Your task to perform on an android device: check google app version Image 0: 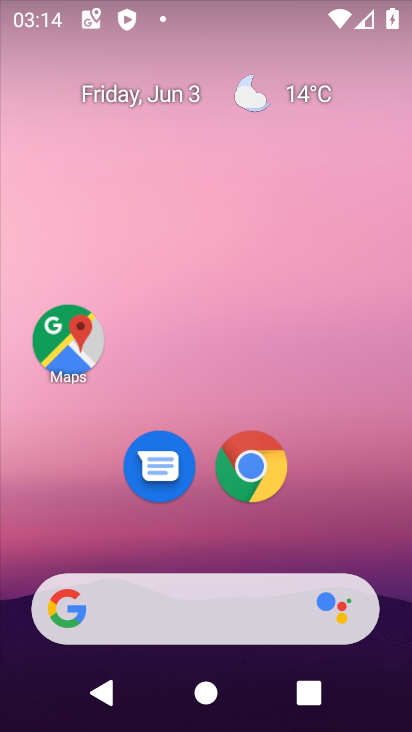
Step 0: click (212, 528)
Your task to perform on an android device: check google app version Image 1: 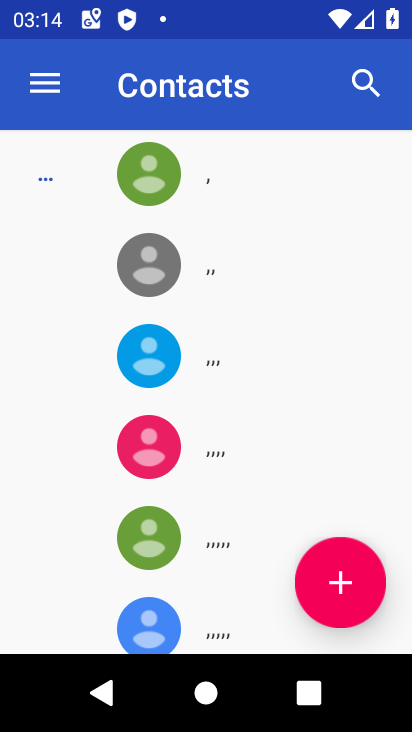
Step 1: drag from (233, 4) to (236, 502)
Your task to perform on an android device: check google app version Image 2: 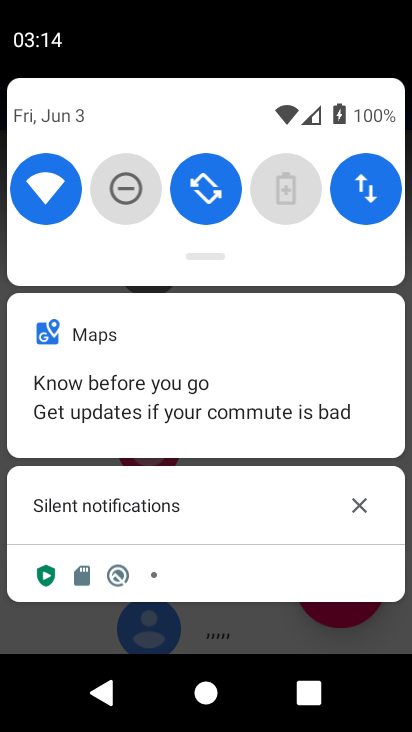
Step 2: press home button
Your task to perform on an android device: check google app version Image 3: 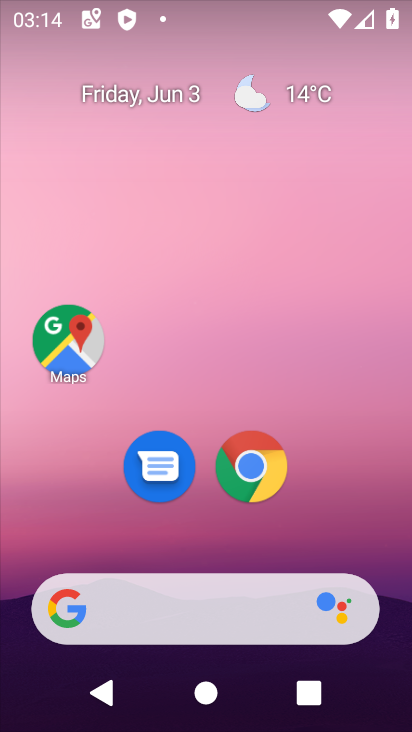
Step 3: drag from (206, 549) to (234, 108)
Your task to perform on an android device: check google app version Image 4: 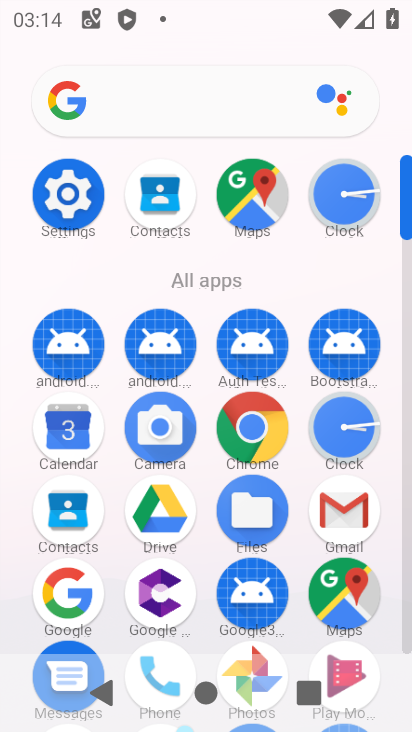
Step 4: click (63, 586)
Your task to perform on an android device: check google app version Image 5: 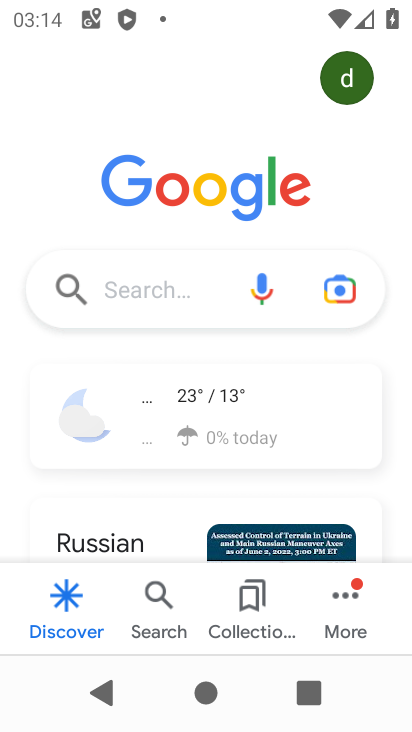
Step 5: click (349, 594)
Your task to perform on an android device: check google app version Image 6: 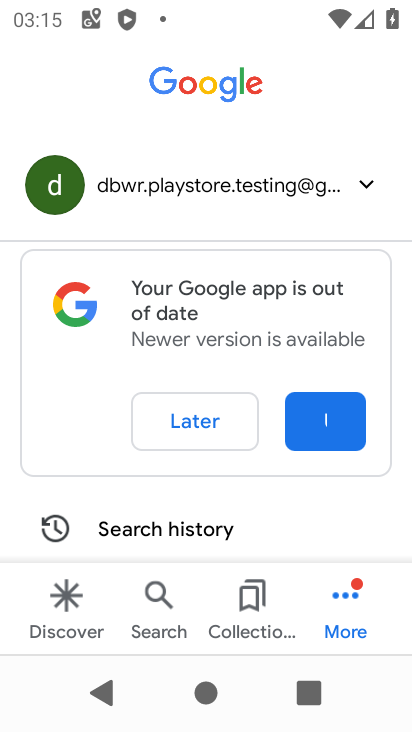
Step 6: click (348, 588)
Your task to perform on an android device: check google app version Image 7: 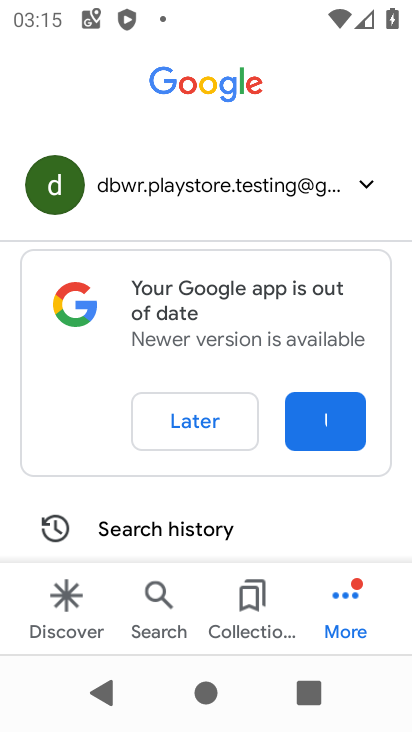
Step 7: drag from (204, 503) to (215, 167)
Your task to perform on an android device: check google app version Image 8: 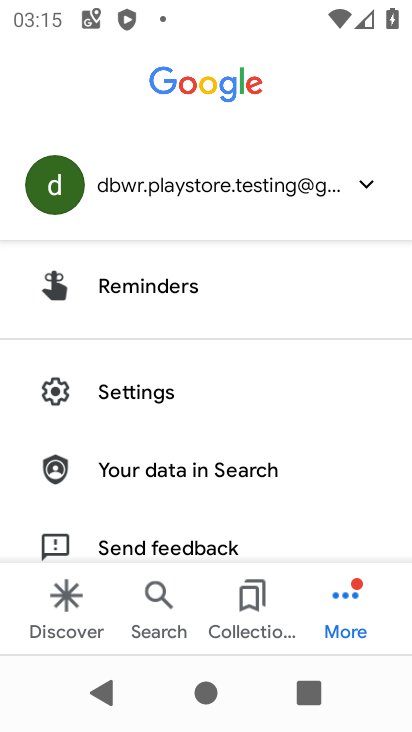
Step 8: click (184, 384)
Your task to perform on an android device: check google app version Image 9: 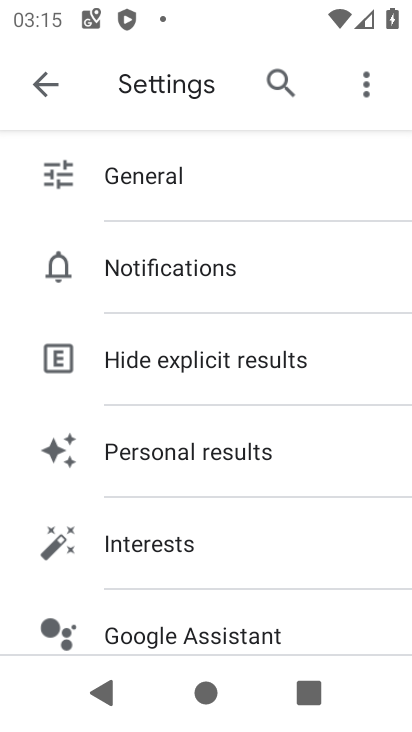
Step 9: drag from (227, 578) to (248, 233)
Your task to perform on an android device: check google app version Image 10: 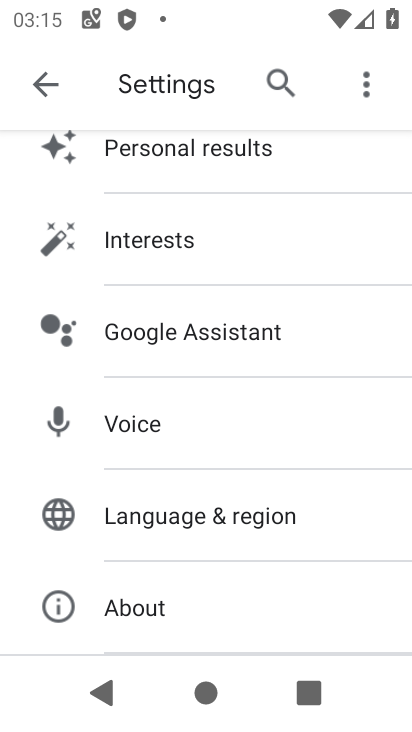
Step 10: click (182, 610)
Your task to perform on an android device: check google app version Image 11: 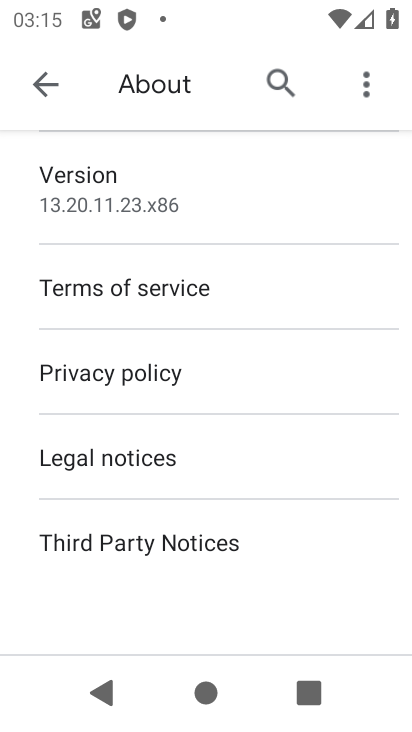
Step 11: task complete